Your task to perform on an android device: Go to wifi settings Image 0: 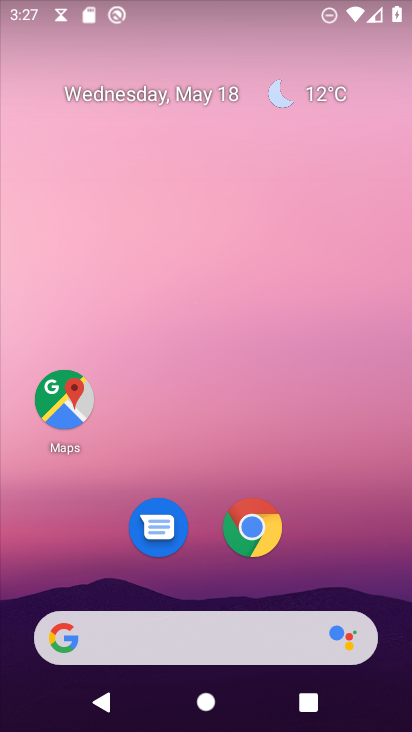
Step 0: drag from (340, 530) to (229, 37)
Your task to perform on an android device: Go to wifi settings Image 1: 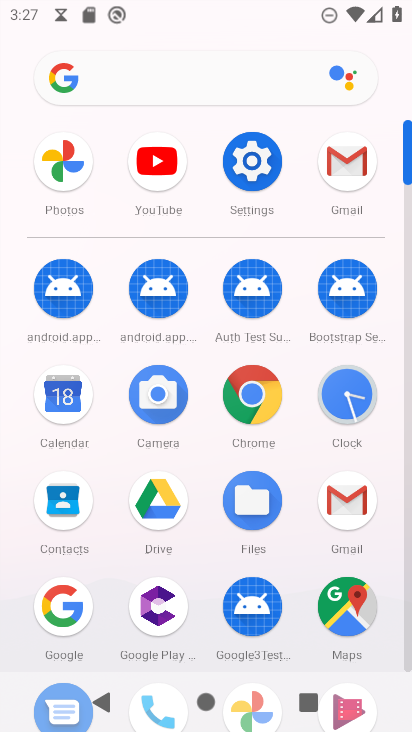
Step 1: click (255, 160)
Your task to perform on an android device: Go to wifi settings Image 2: 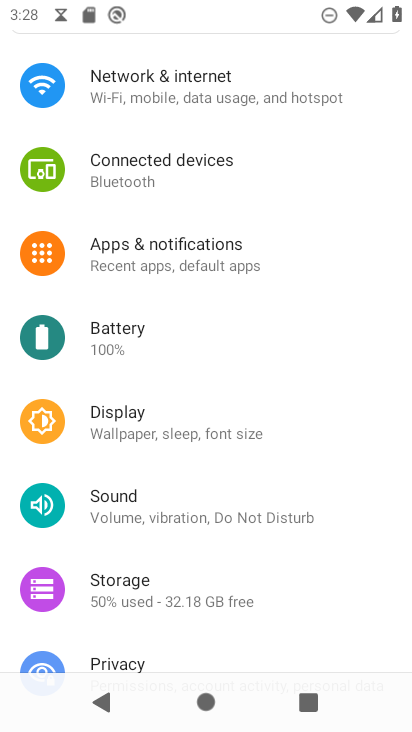
Step 2: click (225, 91)
Your task to perform on an android device: Go to wifi settings Image 3: 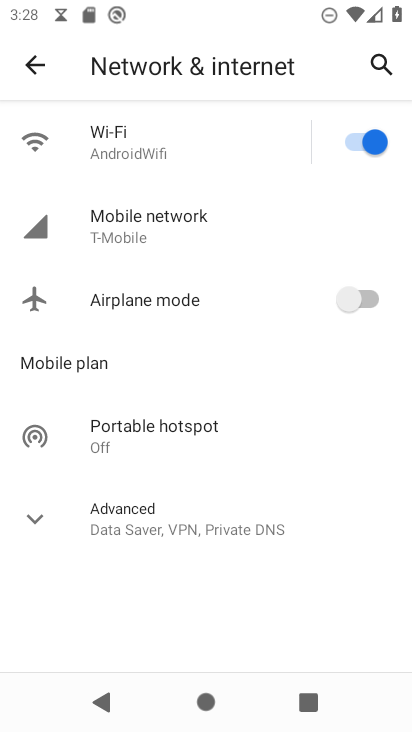
Step 3: click (174, 137)
Your task to perform on an android device: Go to wifi settings Image 4: 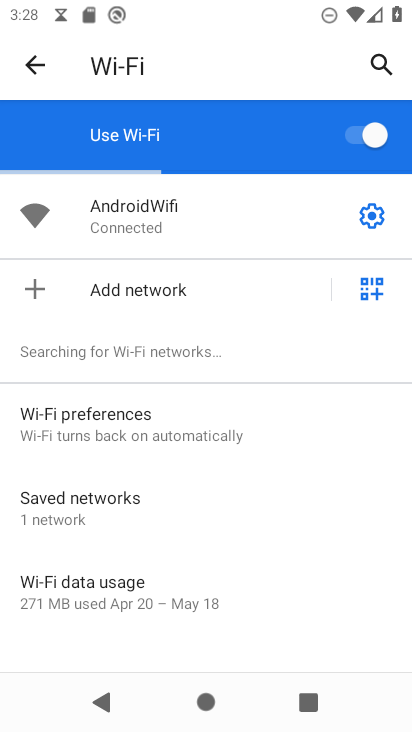
Step 4: task complete